Your task to perform on an android device: set the stopwatch Image 0: 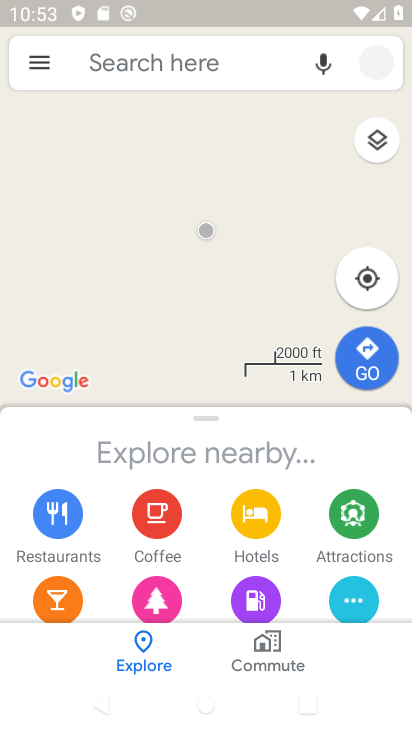
Step 0: press home button
Your task to perform on an android device: set the stopwatch Image 1: 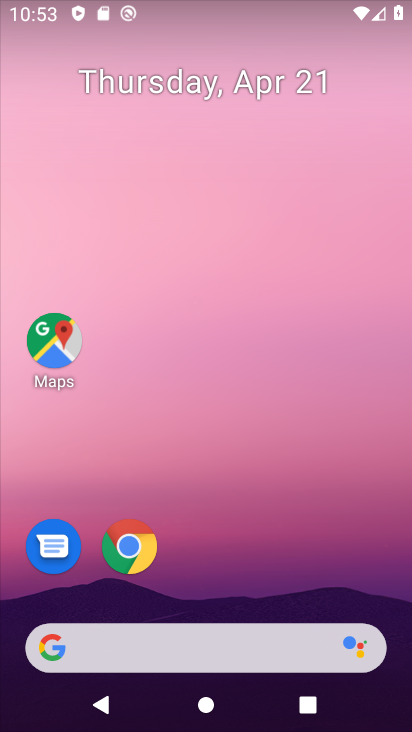
Step 1: drag from (319, 547) to (243, 98)
Your task to perform on an android device: set the stopwatch Image 2: 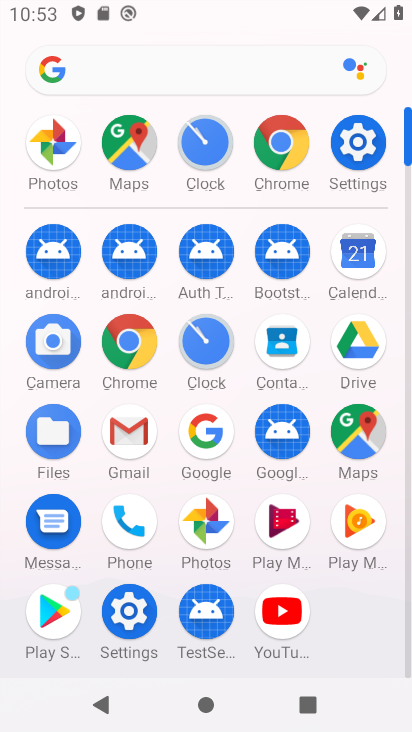
Step 2: click (215, 343)
Your task to perform on an android device: set the stopwatch Image 3: 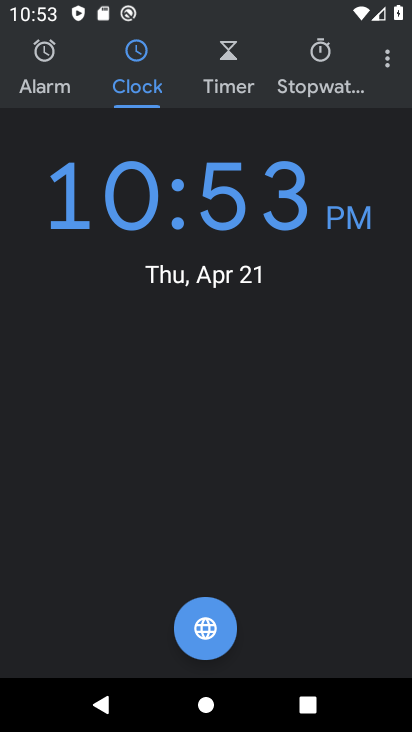
Step 3: click (335, 78)
Your task to perform on an android device: set the stopwatch Image 4: 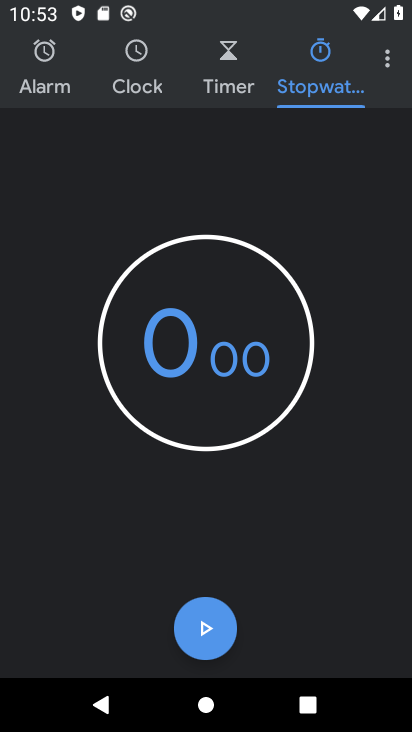
Step 4: click (218, 626)
Your task to perform on an android device: set the stopwatch Image 5: 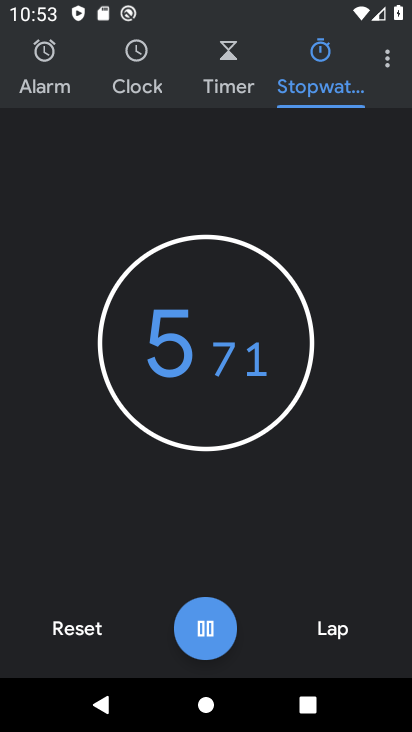
Step 5: click (219, 624)
Your task to perform on an android device: set the stopwatch Image 6: 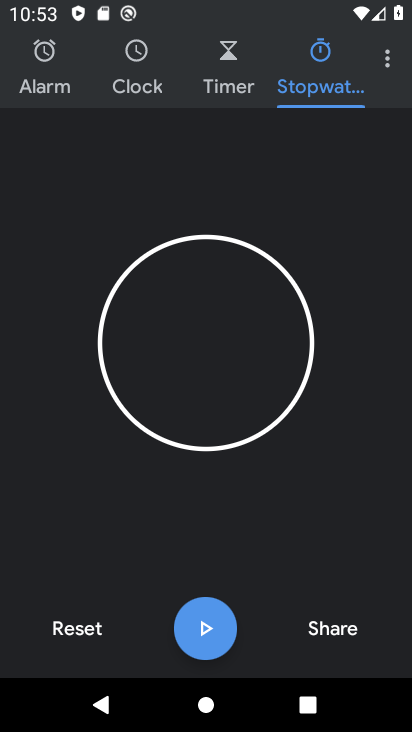
Step 6: task complete